Your task to perform on an android device: Go to privacy settings Image 0: 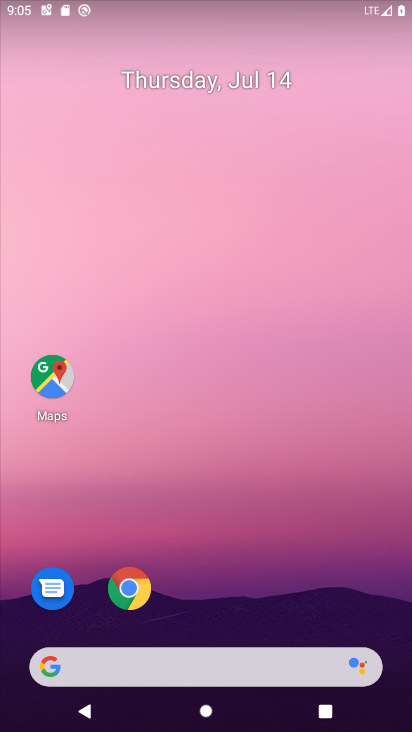
Step 0: drag from (282, 557) to (284, 94)
Your task to perform on an android device: Go to privacy settings Image 1: 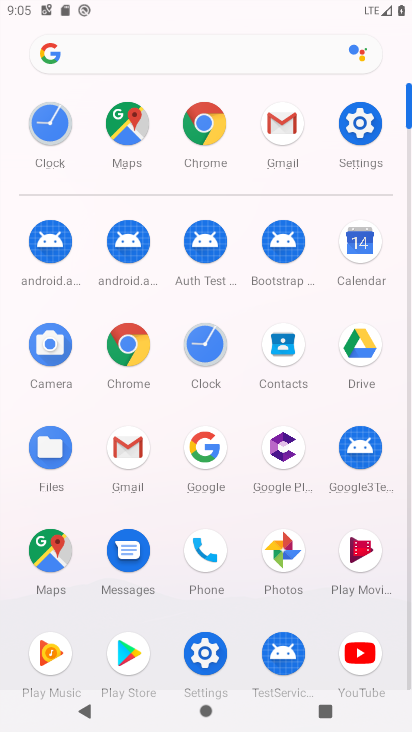
Step 1: click (212, 641)
Your task to perform on an android device: Go to privacy settings Image 2: 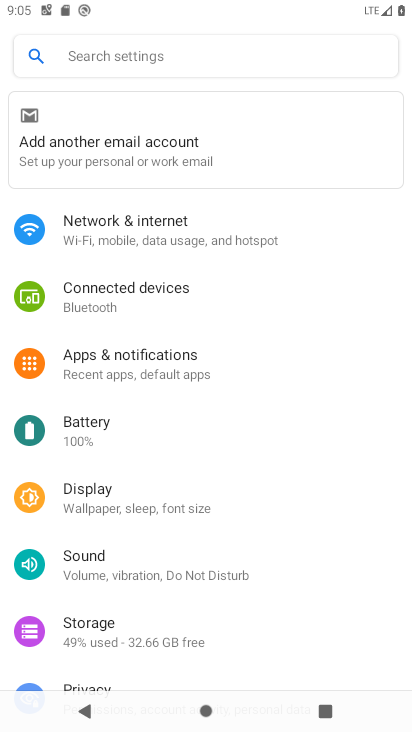
Step 2: drag from (327, 609) to (327, 275)
Your task to perform on an android device: Go to privacy settings Image 3: 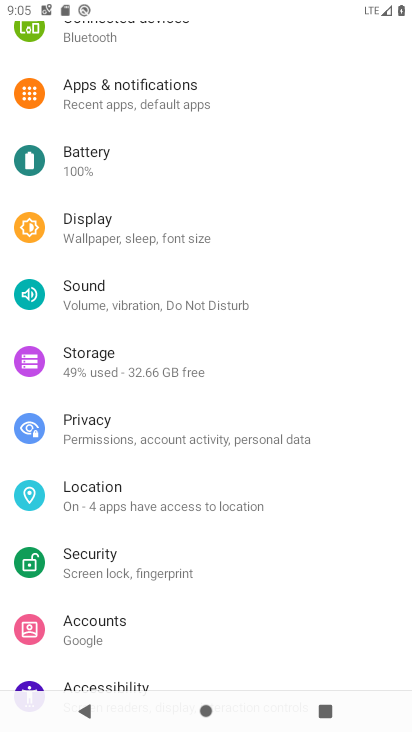
Step 3: click (86, 605)
Your task to perform on an android device: Go to privacy settings Image 4: 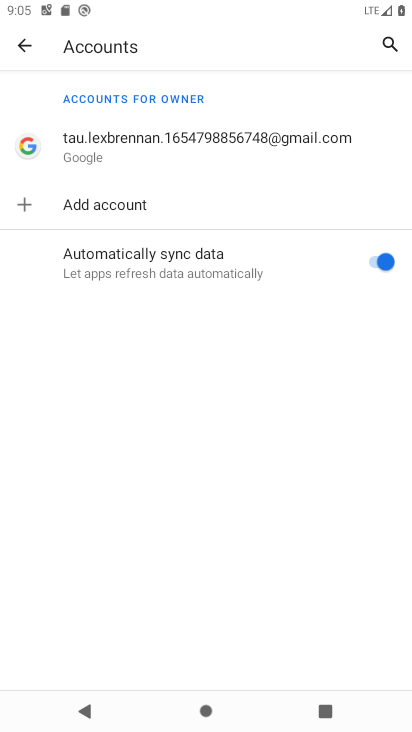
Step 4: click (21, 44)
Your task to perform on an android device: Go to privacy settings Image 5: 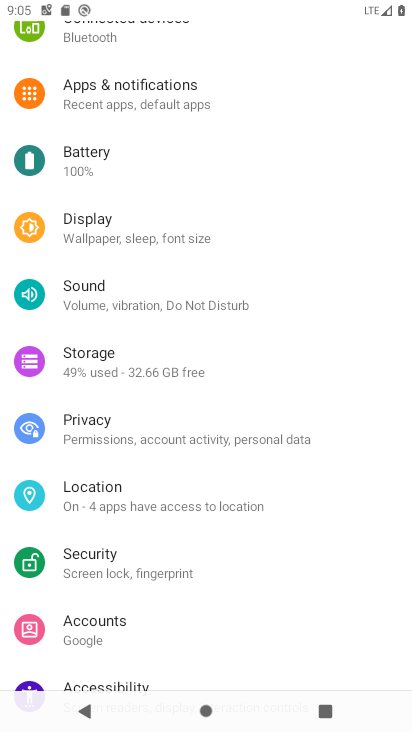
Step 5: click (38, 421)
Your task to perform on an android device: Go to privacy settings Image 6: 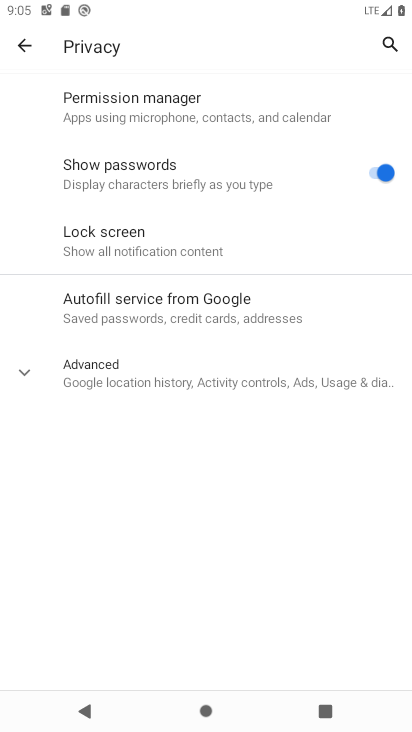
Step 6: task complete